Your task to perform on an android device: Check the weather Image 0: 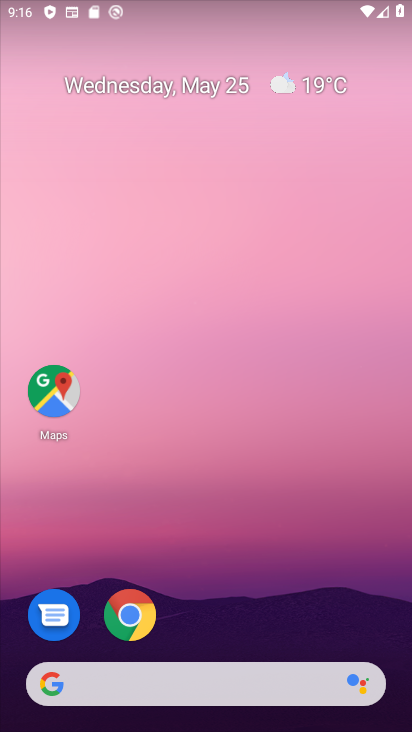
Step 0: click (322, 87)
Your task to perform on an android device: Check the weather Image 1: 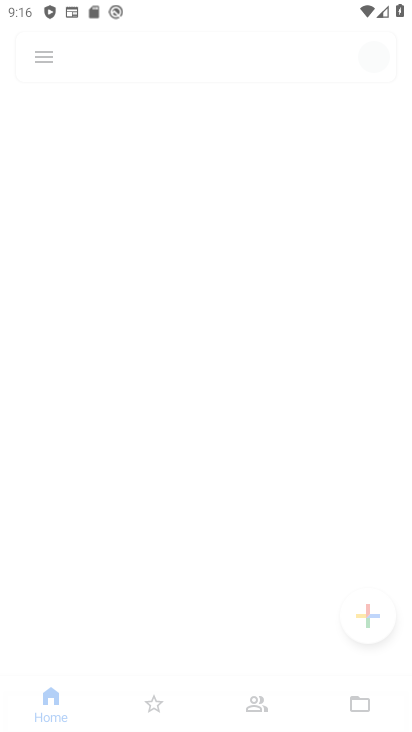
Step 1: drag from (211, 704) to (304, 146)
Your task to perform on an android device: Check the weather Image 2: 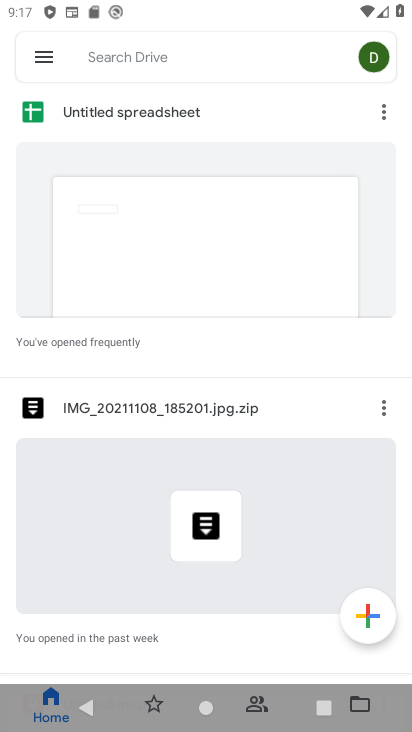
Step 2: press home button
Your task to perform on an android device: Check the weather Image 3: 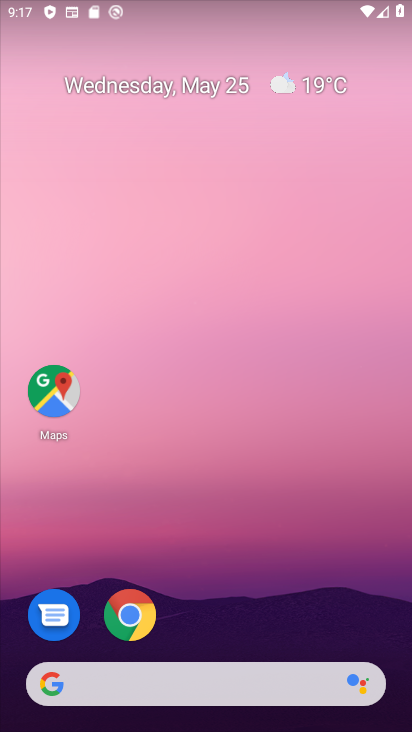
Step 3: drag from (177, 701) to (265, 77)
Your task to perform on an android device: Check the weather Image 4: 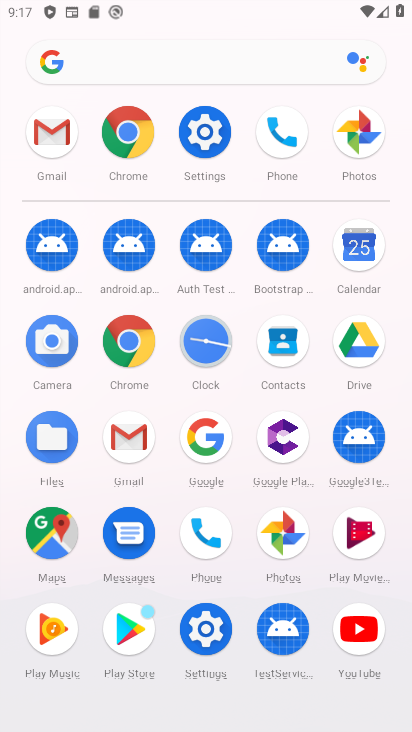
Step 4: click (131, 69)
Your task to perform on an android device: Check the weather Image 5: 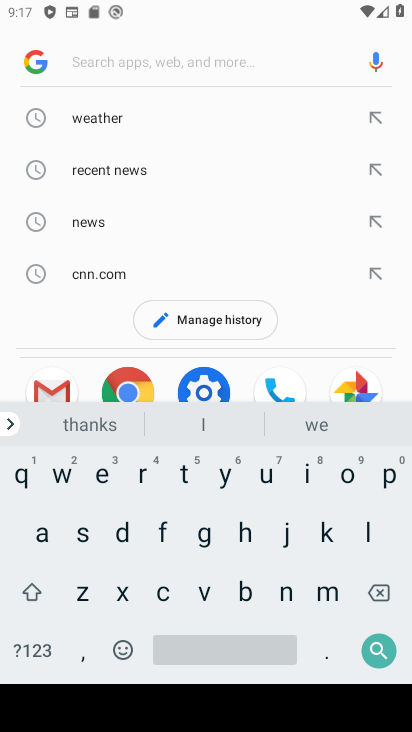
Step 5: click (85, 120)
Your task to perform on an android device: Check the weather Image 6: 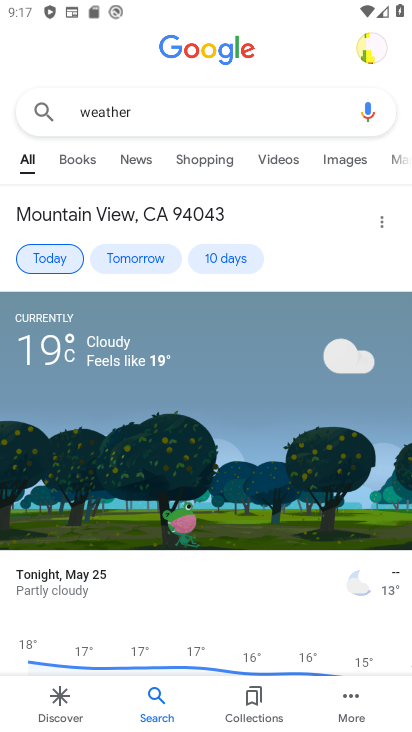
Step 6: task complete